Your task to perform on an android device: Search for pizza restaurants on Maps Image 0: 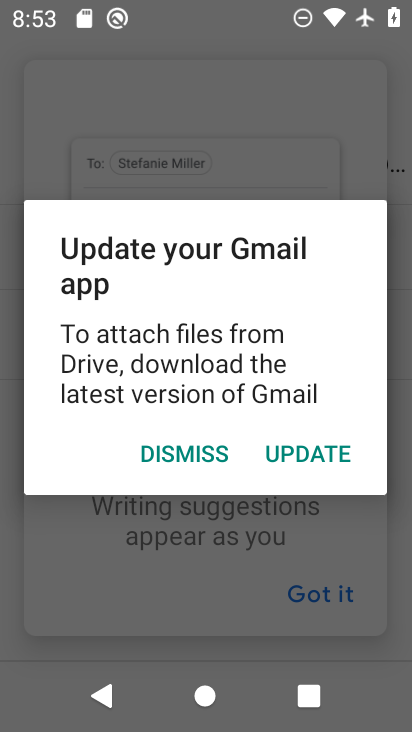
Step 0: press home button
Your task to perform on an android device: Search for pizza restaurants on Maps Image 1: 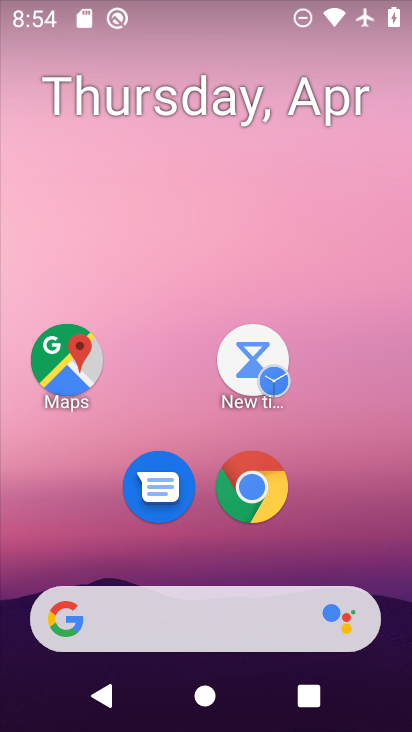
Step 1: click (69, 356)
Your task to perform on an android device: Search for pizza restaurants on Maps Image 2: 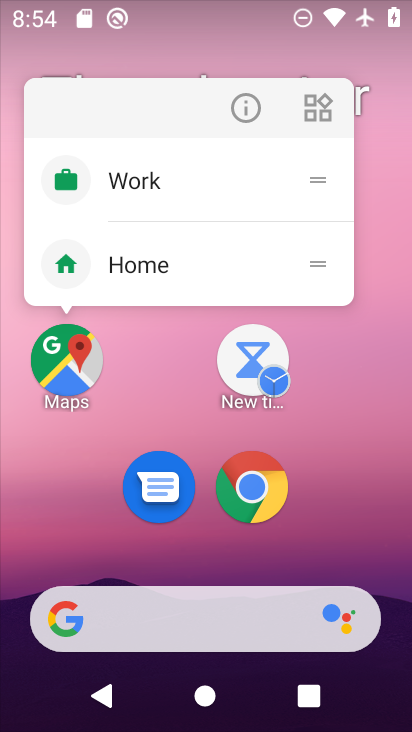
Step 2: click (69, 356)
Your task to perform on an android device: Search for pizza restaurants on Maps Image 3: 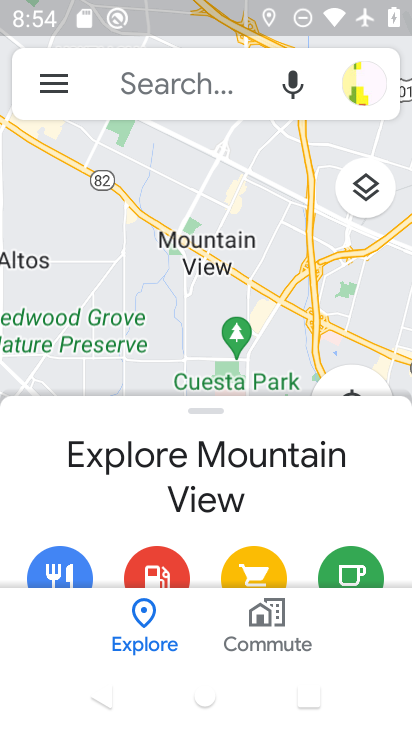
Step 3: click (168, 88)
Your task to perform on an android device: Search for pizza restaurants on Maps Image 4: 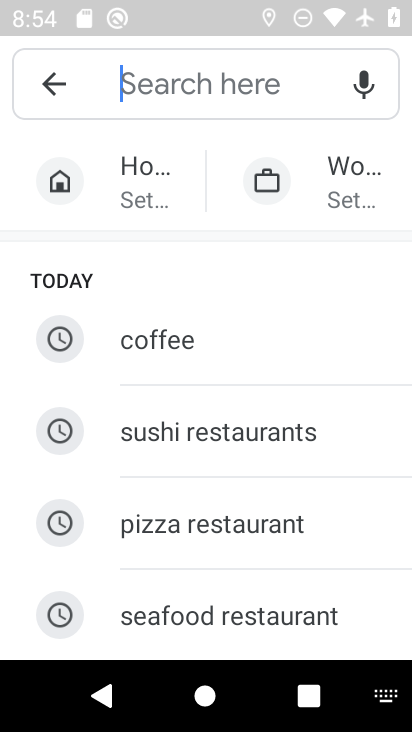
Step 4: click (175, 522)
Your task to perform on an android device: Search for pizza restaurants on Maps Image 5: 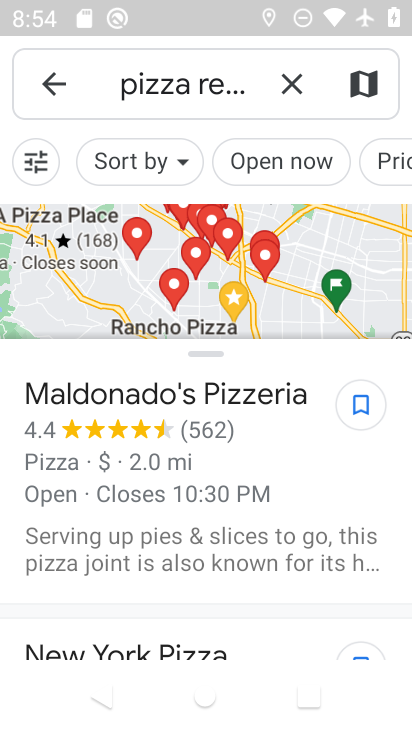
Step 5: task complete